Your task to perform on an android device: change alarm snooze length Image 0: 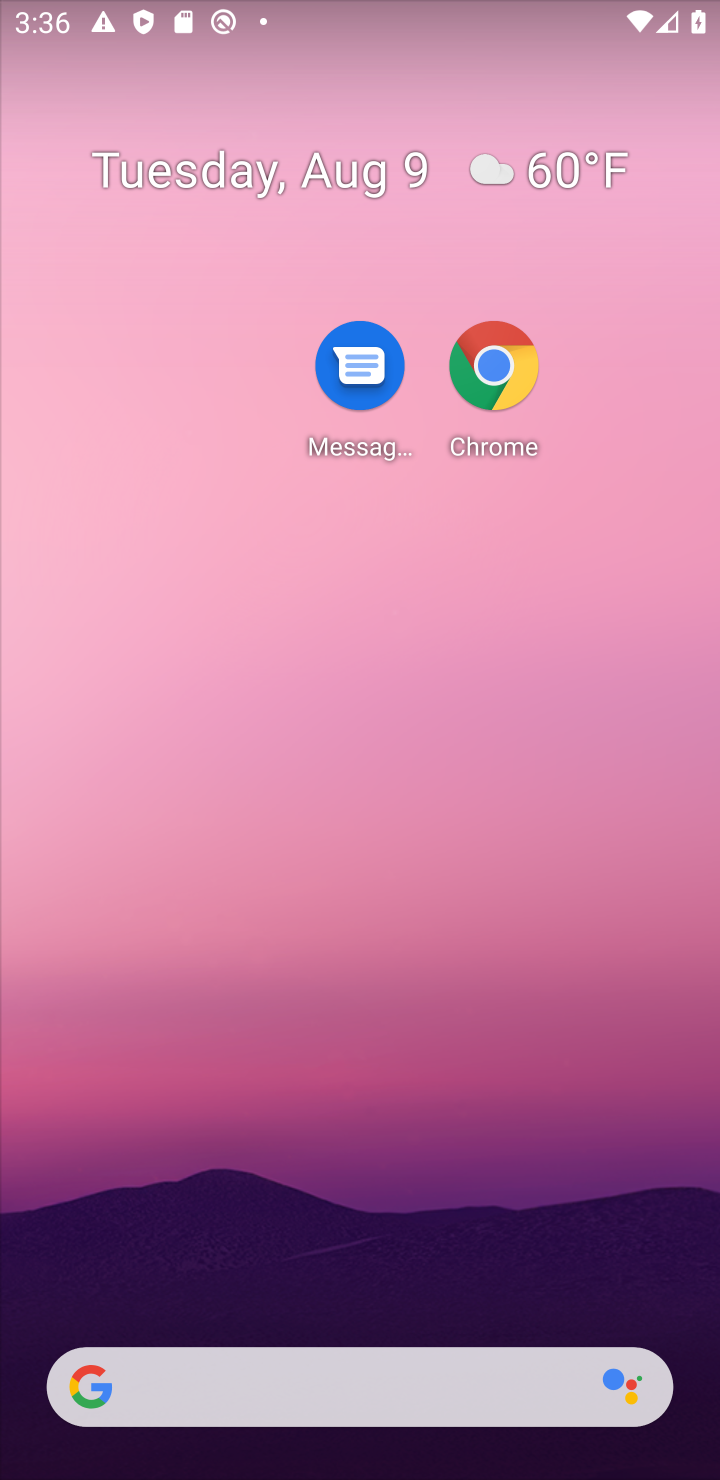
Step 0: drag from (403, 1161) to (412, 517)
Your task to perform on an android device: change alarm snooze length Image 1: 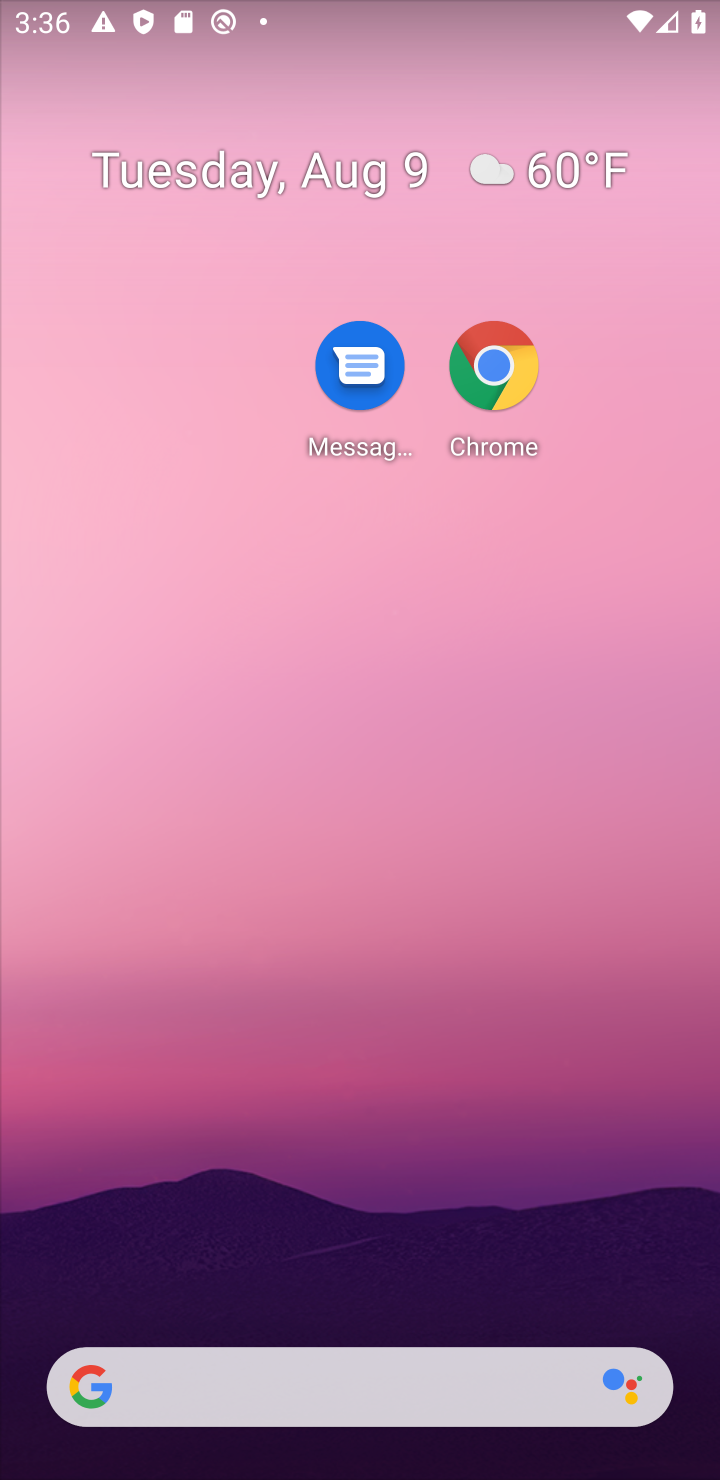
Step 1: drag from (304, 913) to (415, 194)
Your task to perform on an android device: change alarm snooze length Image 2: 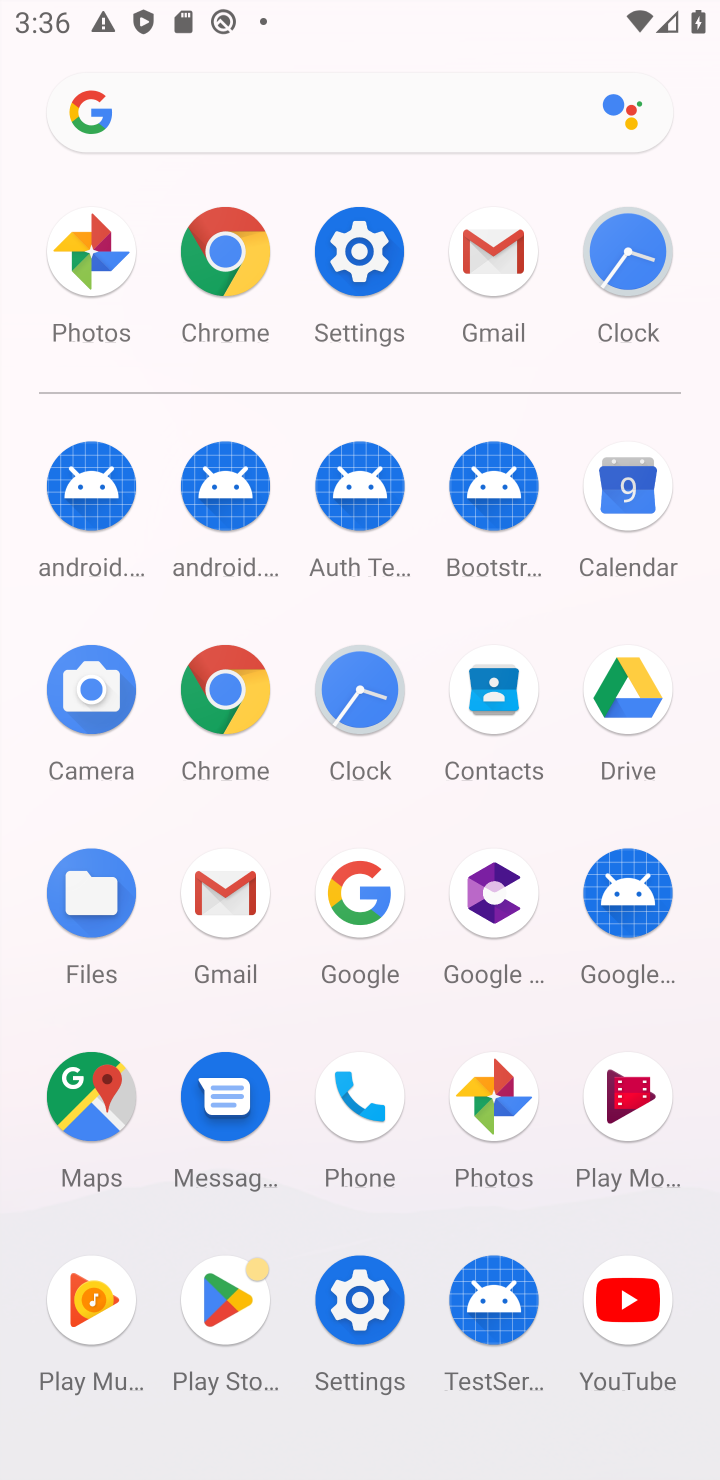
Step 2: click (368, 672)
Your task to perform on an android device: change alarm snooze length Image 3: 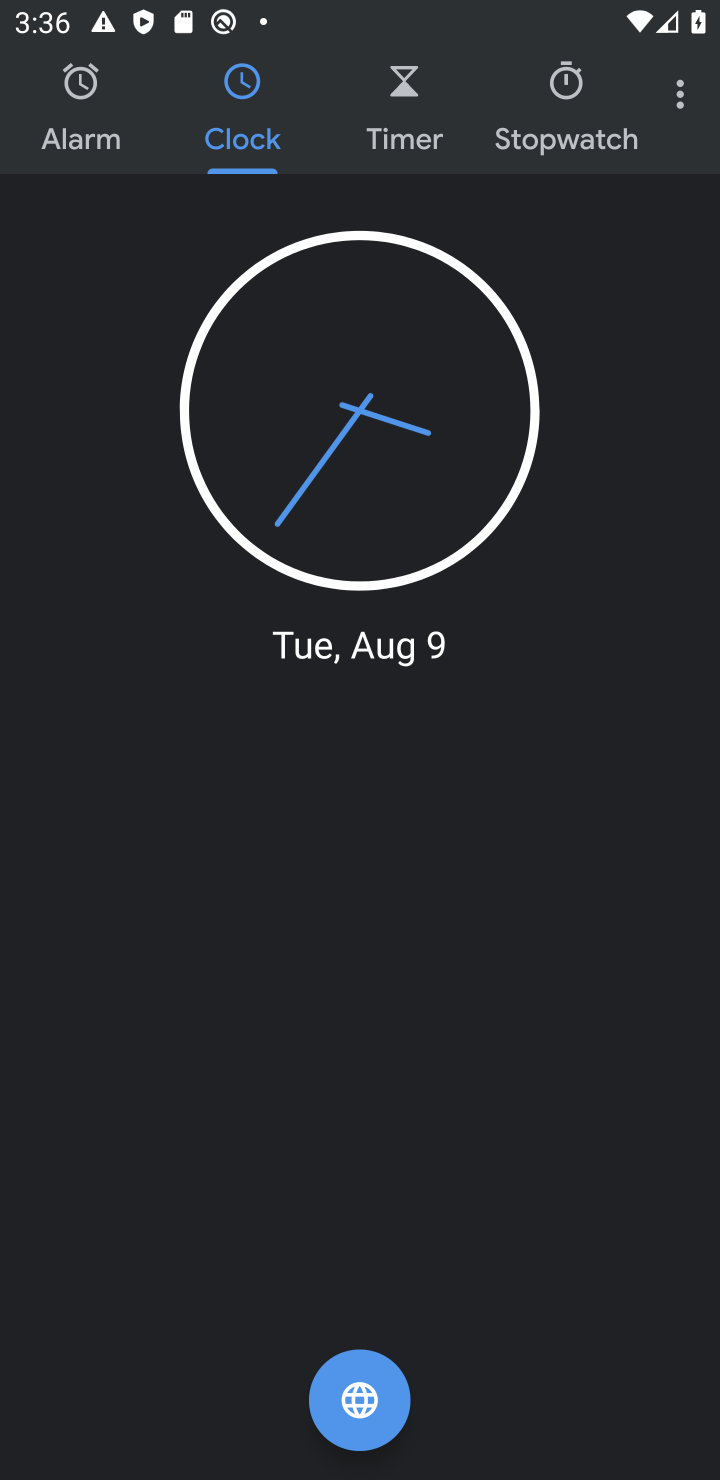
Step 3: click (689, 105)
Your task to perform on an android device: change alarm snooze length Image 4: 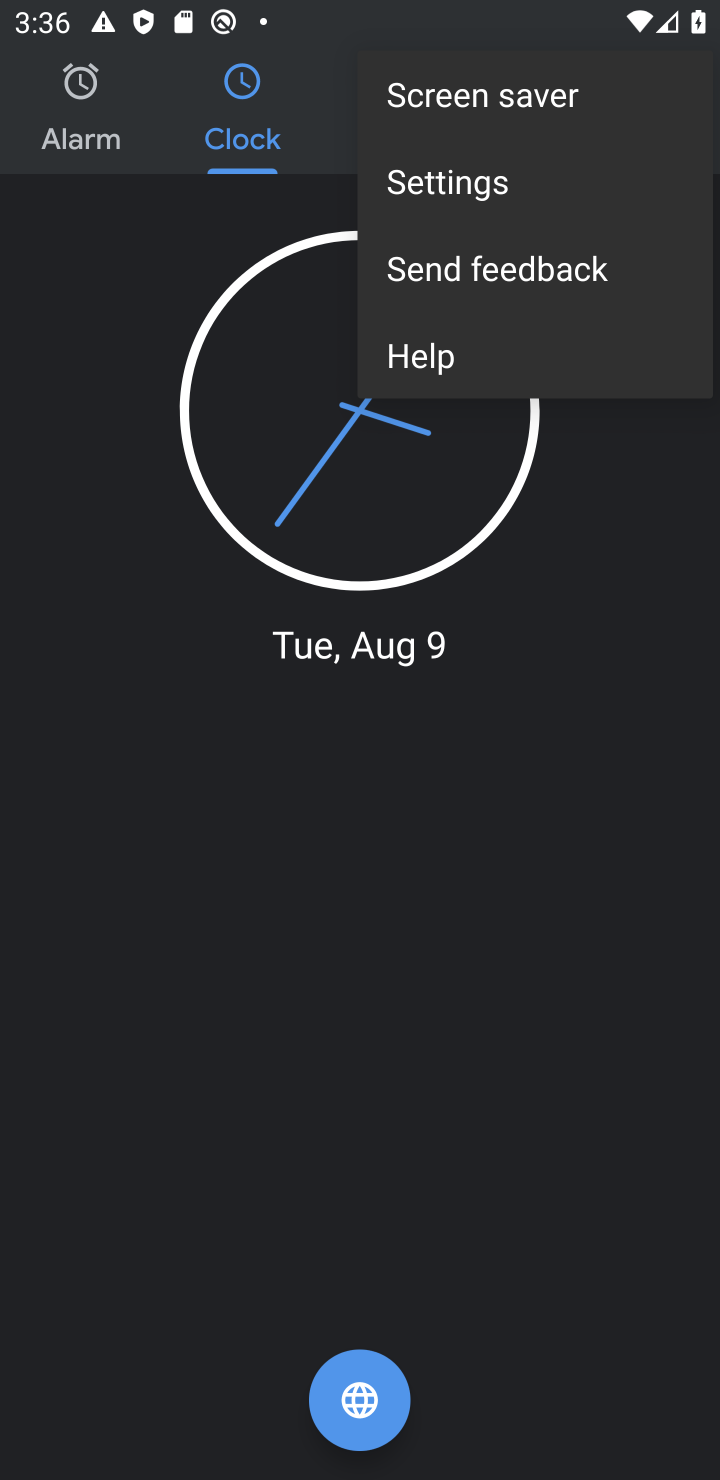
Step 4: click (507, 179)
Your task to perform on an android device: change alarm snooze length Image 5: 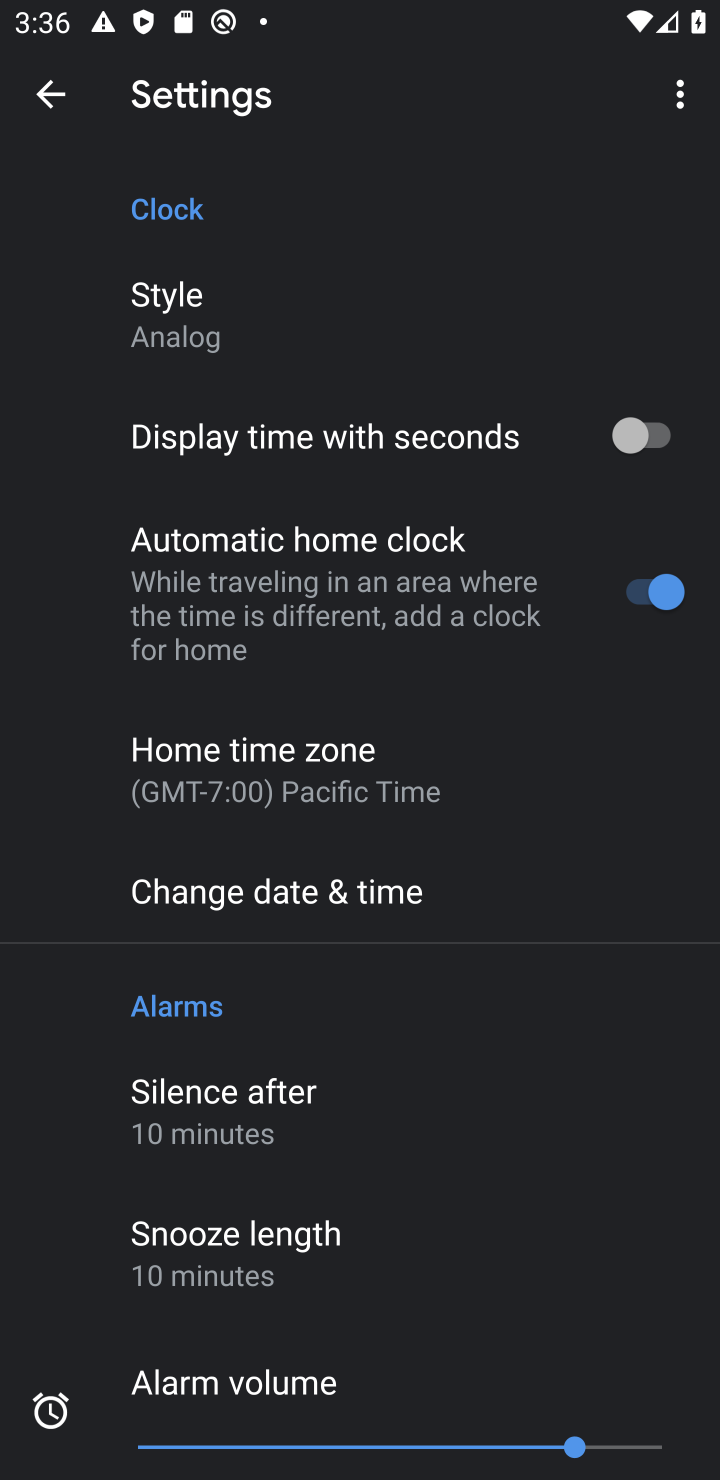
Step 5: click (284, 1223)
Your task to perform on an android device: change alarm snooze length Image 6: 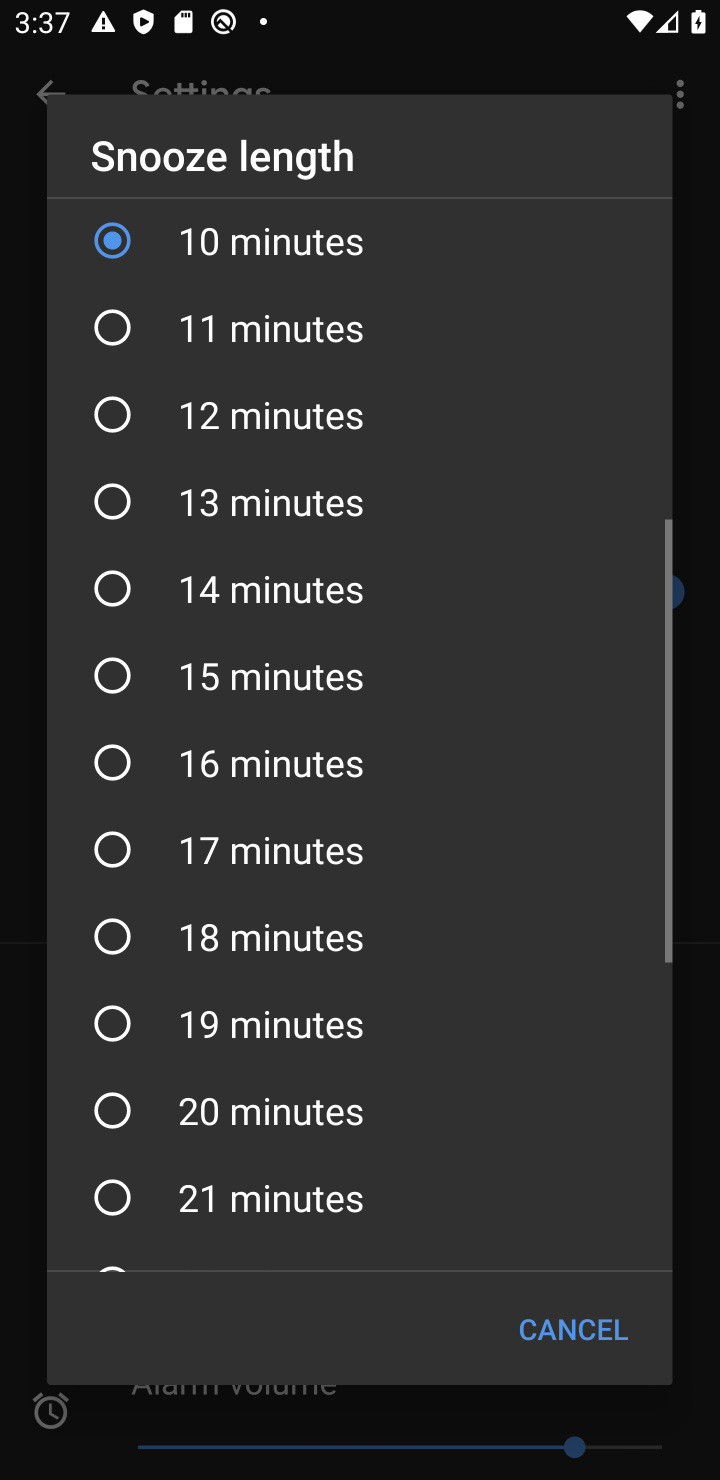
Step 6: click (296, 944)
Your task to perform on an android device: change alarm snooze length Image 7: 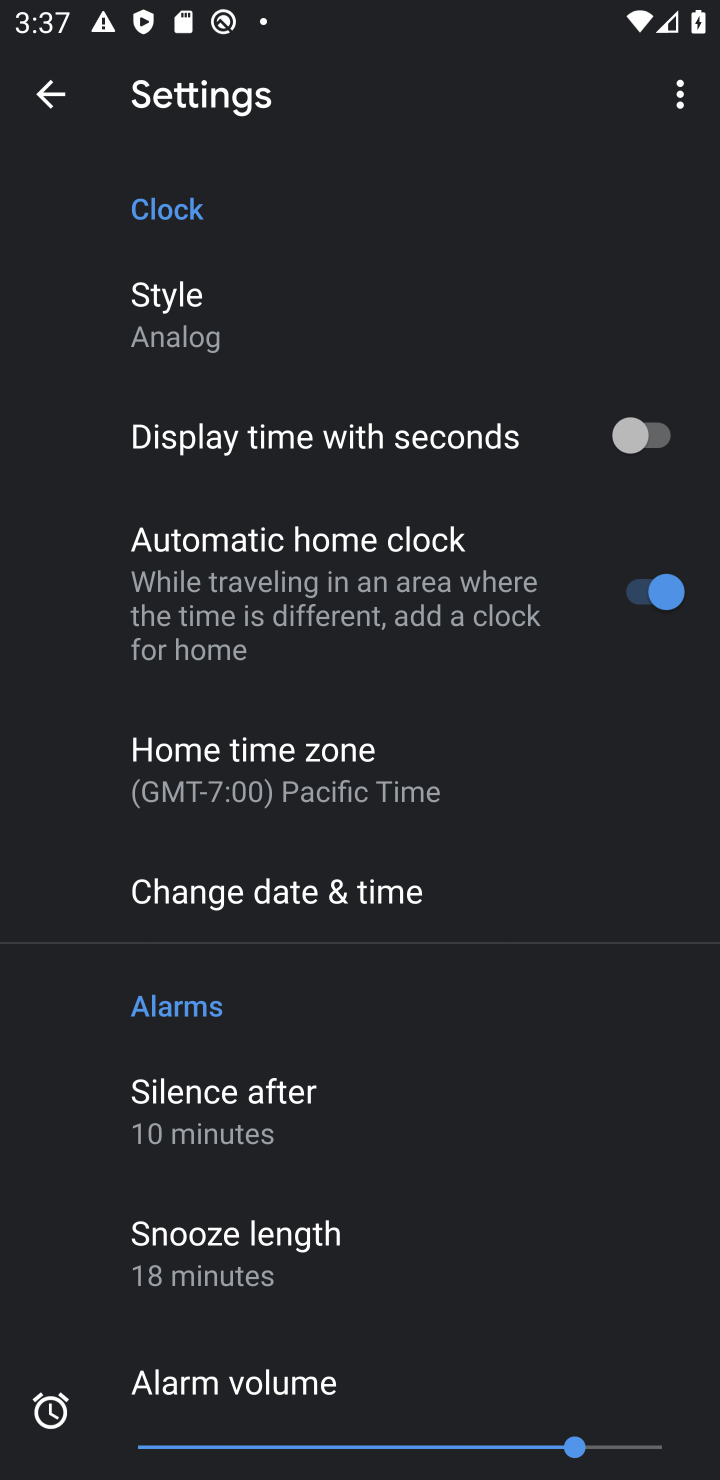
Step 7: task complete